Your task to perform on an android device: toggle pop-ups in chrome Image 0: 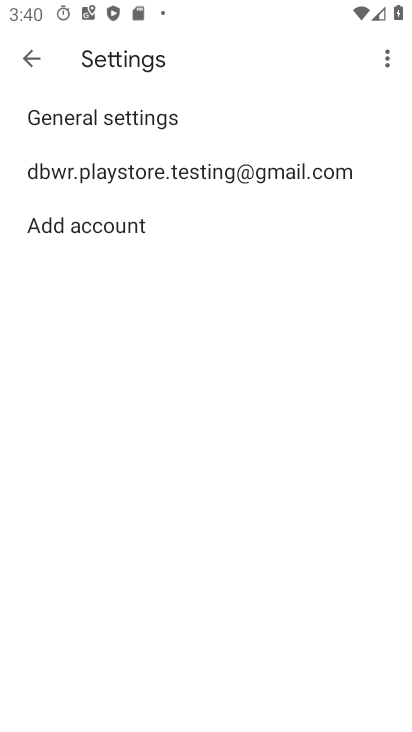
Step 0: press home button
Your task to perform on an android device: toggle pop-ups in chrome Image 1: 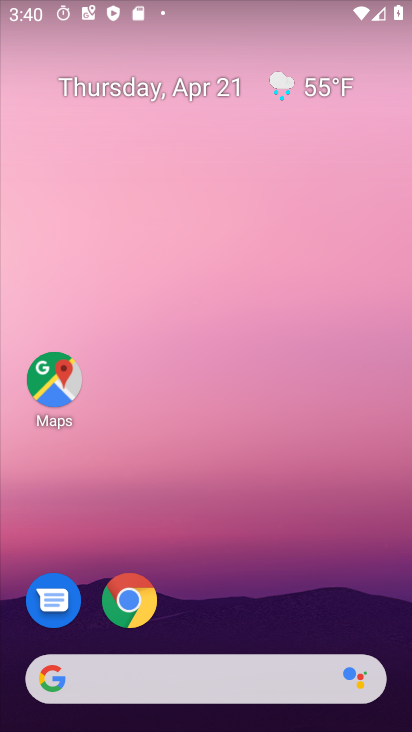
Step 1: drag from (123, 675) to (248, 141)
Your task to perform on an android device: toggle pop-ups in chrome Image 2: 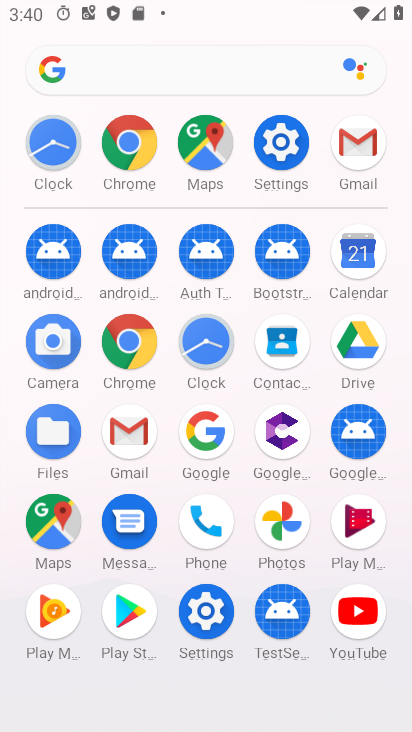
Step 2: click (133, 151)
Your task to perform on an android device: toggle pop-ups in chrome Image 3: 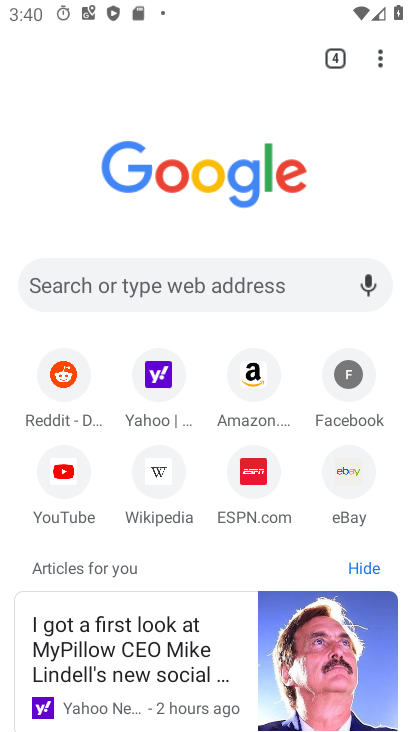
Step 3: click (371, 71)
Your task to perform on an android device: toggle pop-ups in chrome Image 4: 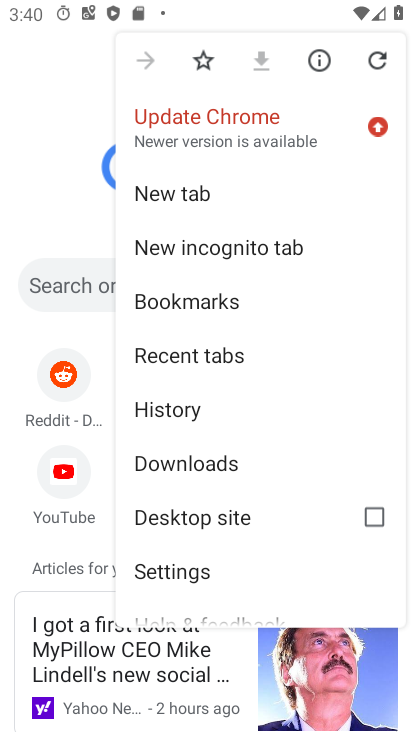
Step 4: drag from (243, 574) to (316, 208)
Your task to perform on an android device: toggle pop-ups in chrome Image 5: 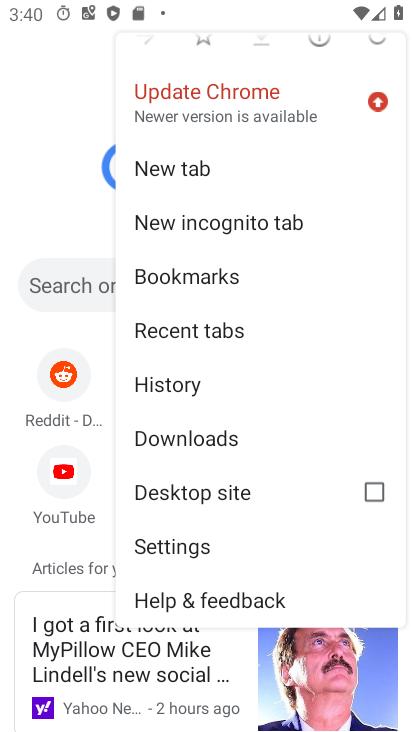
Step 5: click (192, 548)
Your task to perform on an android device: toggle pop-ups in chrome Image 6: 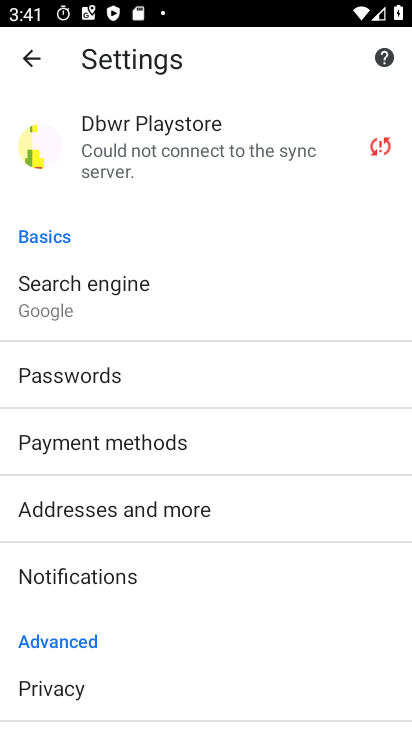
Step 6: drag from (179, 549) to (270, 162)
Your task to perform on an android device: toggle pop-ups in chrome Image 7: 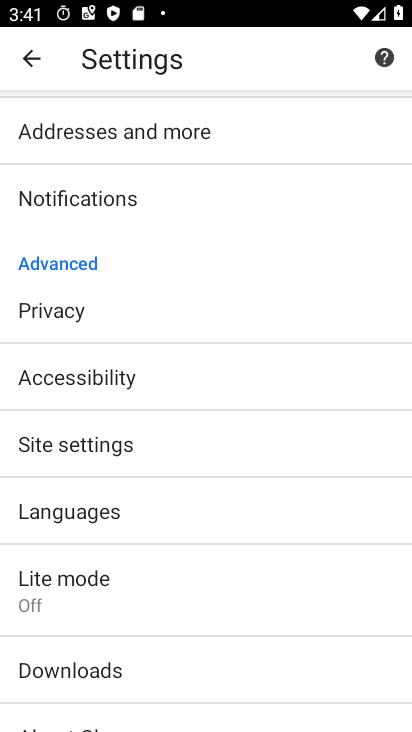
Step 7: click (101, 448)
Your task to perform on an android device: toggle pop-ups in chrome Image 8: 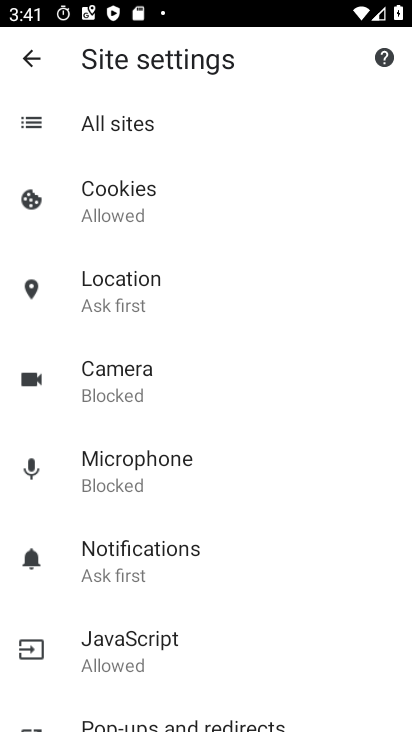
Step 8: drag from (229, 559) to (231, 152)
Your task to perform on an android device: toggle pop-ups in chrome Image 9: 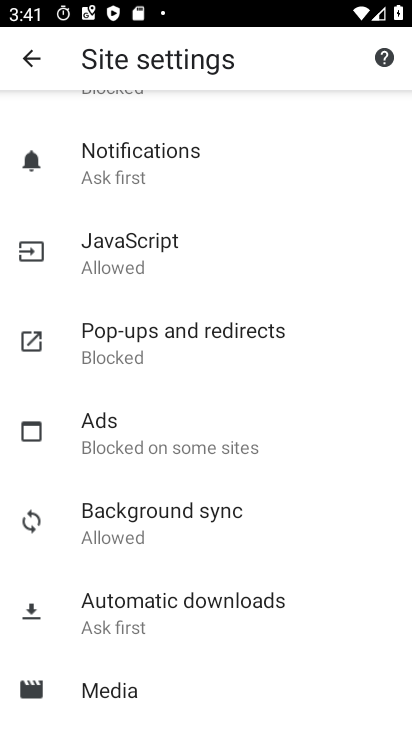
Step 9: click (155, 337)
Your task to perform on an android device: toggle pop-ups in chrome Image 10: 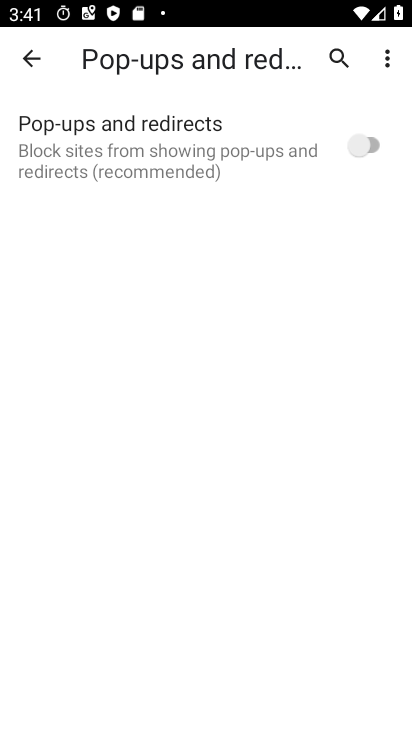
Step 10: click (371, 142)
Your task to perform on an android device: toggle pop-ups in chrome Image 11: 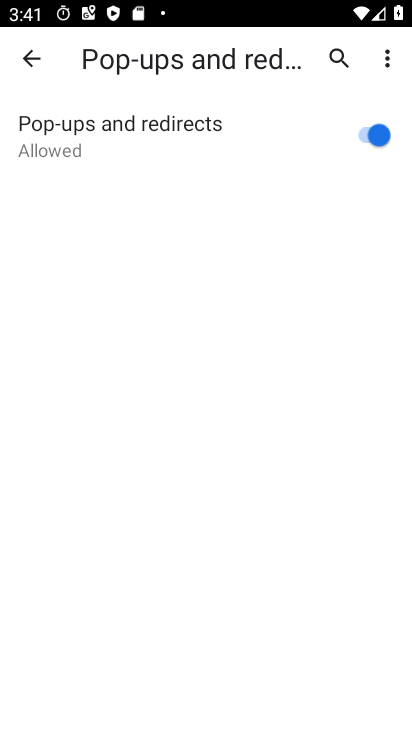
Step 11: task complete